Your task to perform on an android device: Open eBay Image 0: 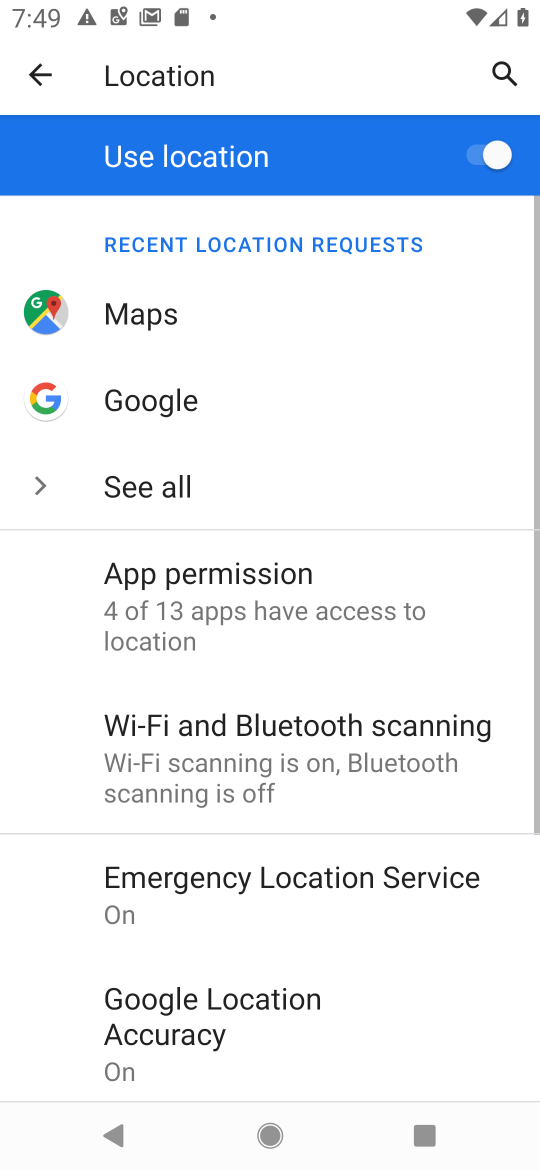
Step 0: press home button
Your task to perform on an android device: Open eBay Image 1: 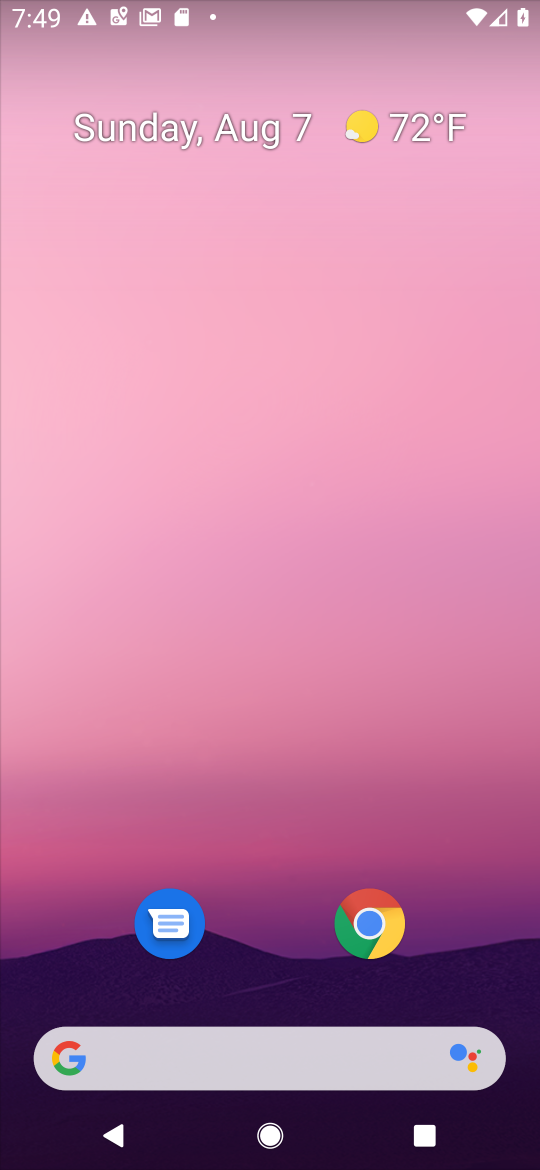
Step 1: drag from (501, 982) to (261, 91)
Your task to perform on an android device: Open eBay Image 2: 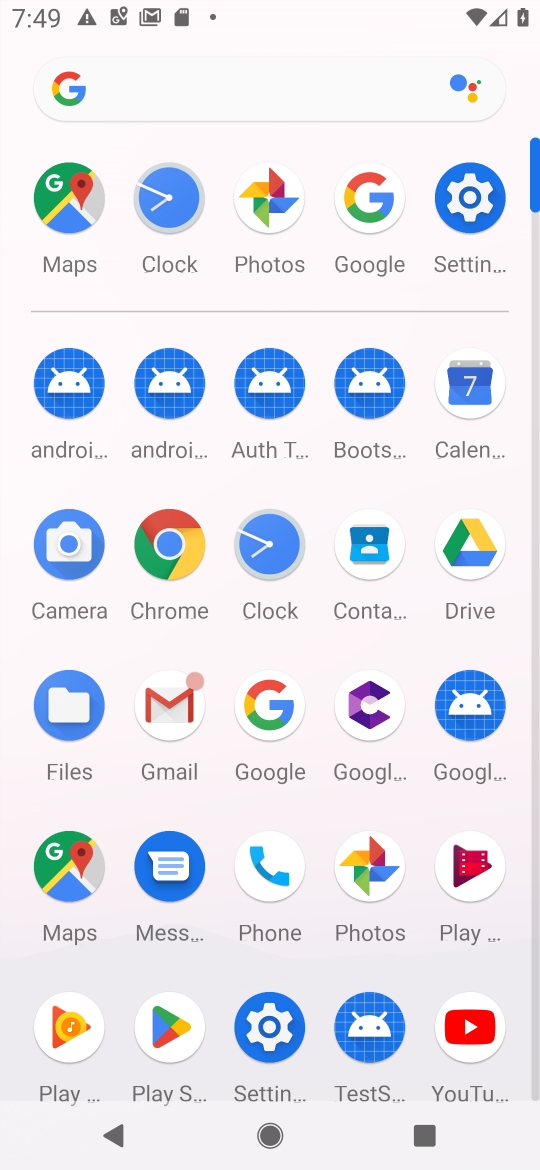
Step 2: click (261, 701)
Your task to perform on an android device: Open eBay Image 3: 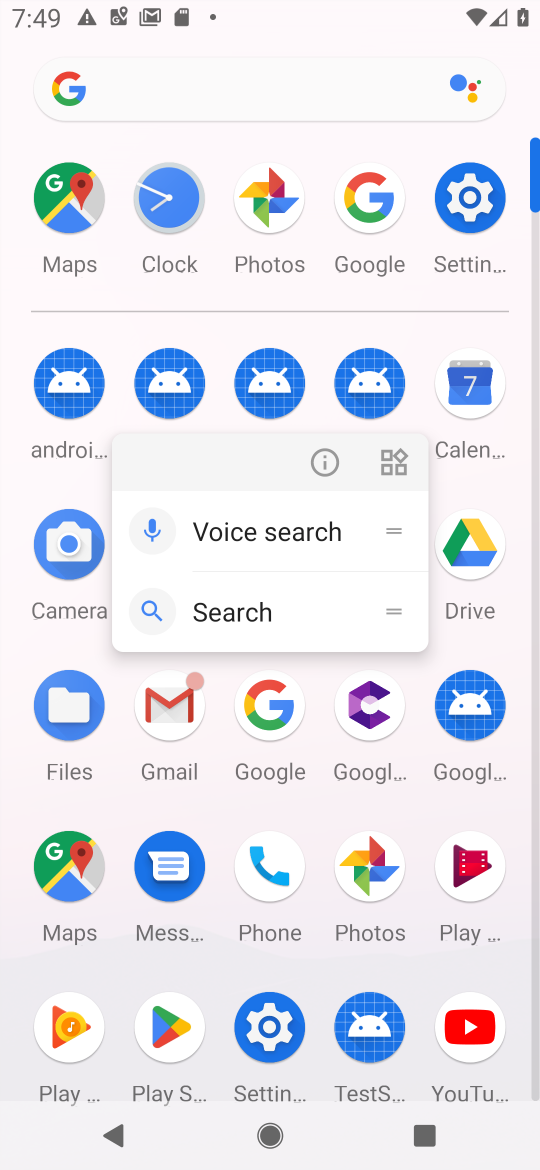
Step 3: click (261, 701)
Your task to perform on an android device: Open eBay Image 4: 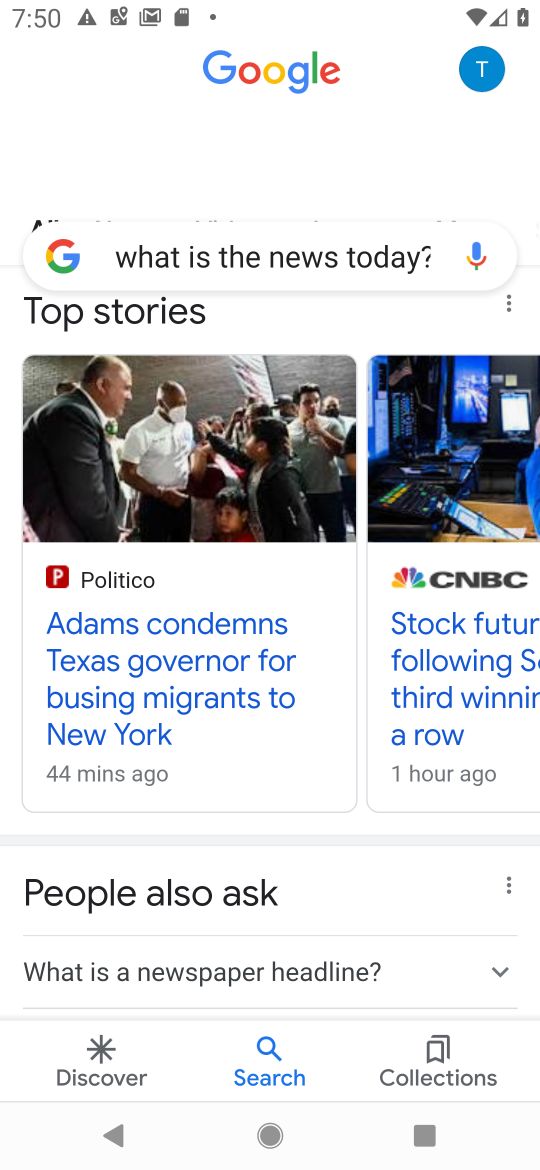
Step 4: press back button
Your task to perform on an android device: Open eBay Image 5: 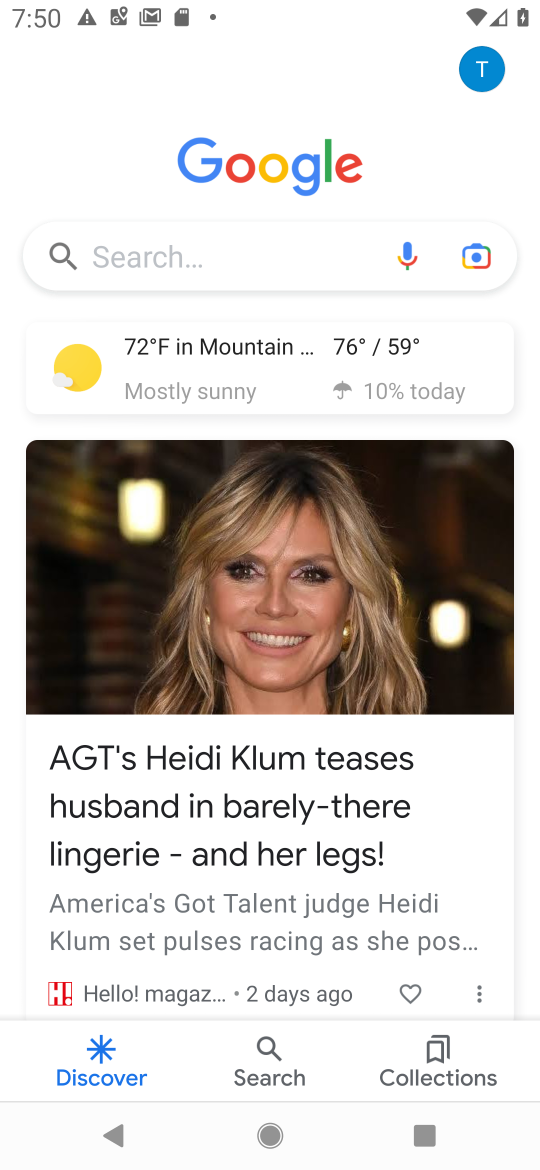
Step 5: click (210, 260)
Your task to perform on an android device: Open eBay Image 6: 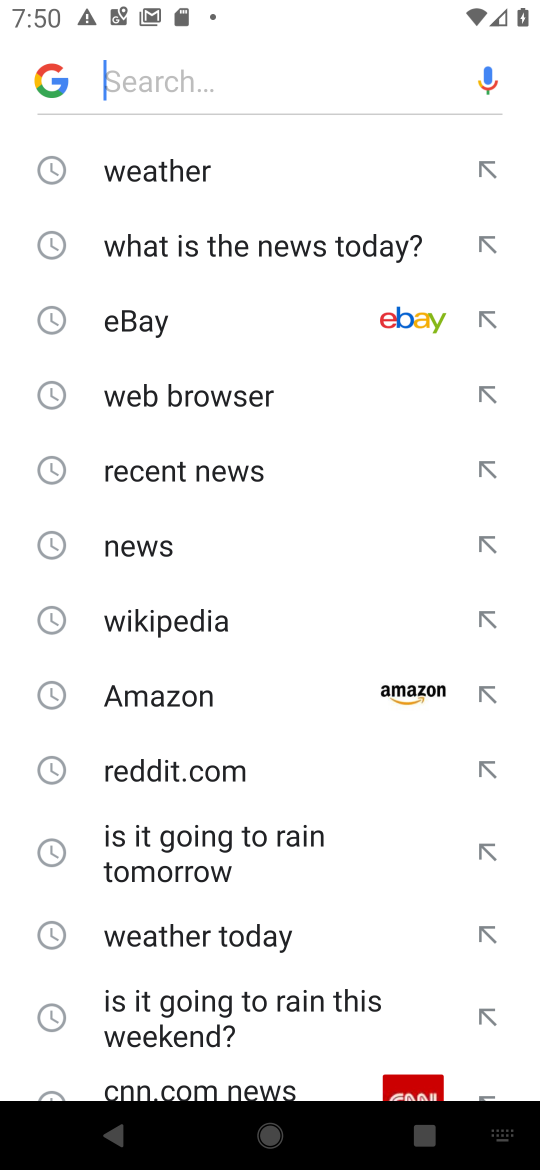
Step 6: click (201, 318)
Your task to perform on an android device: Open eBay Image 7: 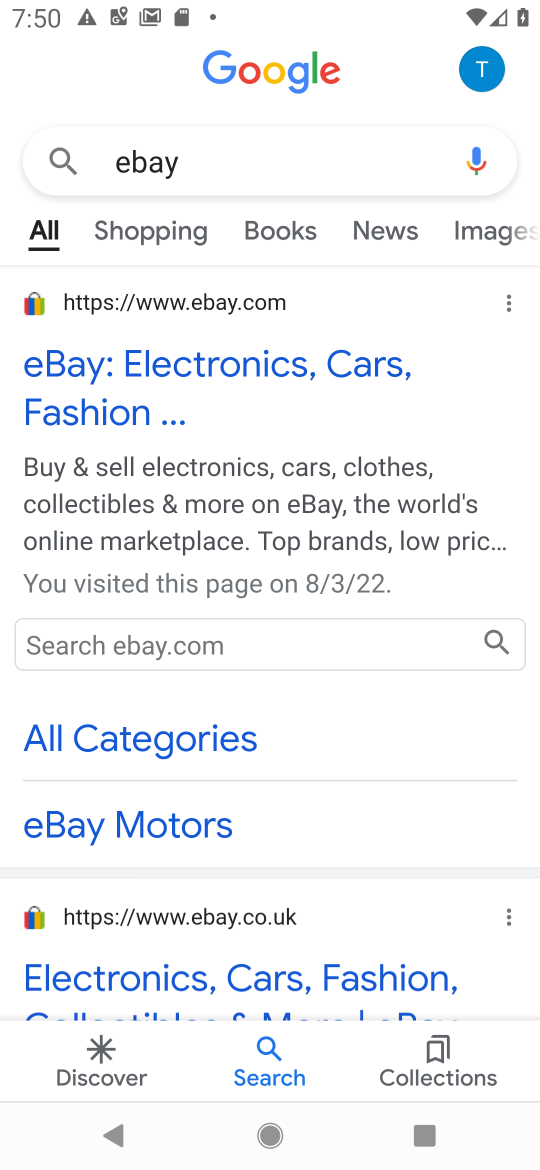
Step 7: task complete